Your task to perform on an android device: Add "bose quietcomfort 35" to the cart on target Image 0: 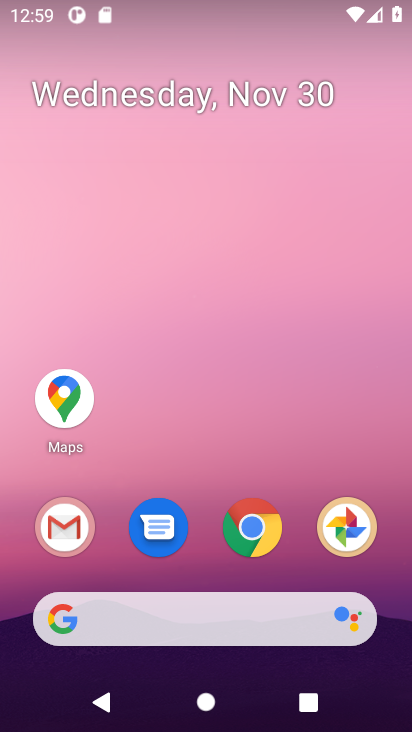
Step 0: click (251, 542)
Your task to perform on an android device: Add "bose quietcomfort 35" to the cart on target Image 1: 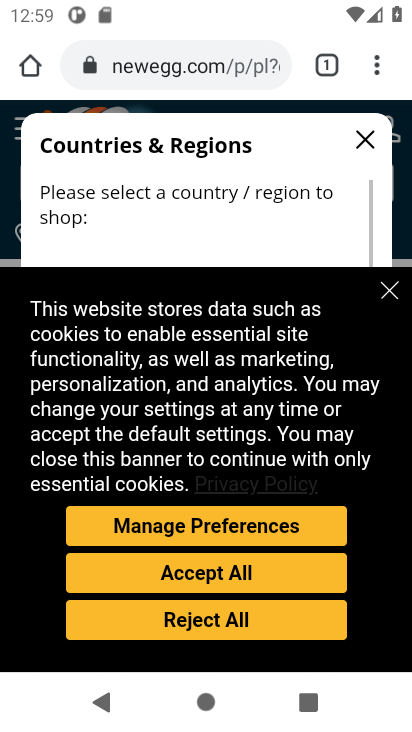
Step 1: click (383, 294)
Your task to perform on an android device: Add "bose quietcomfort 35" to the cart on target Image 2: 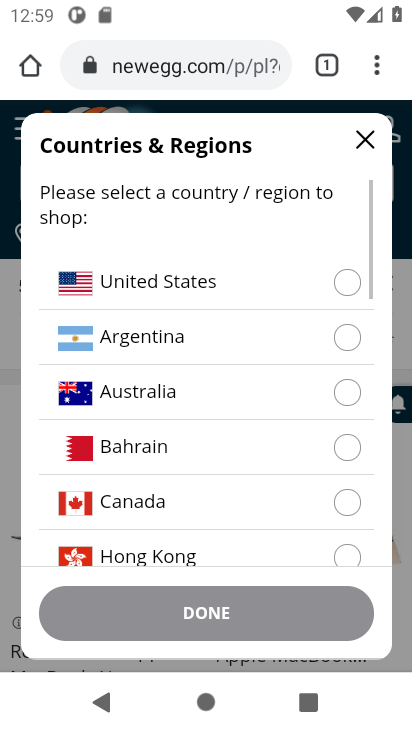
Step 2: click (366, 142)
Your task to perform on an android device: Add "bose quietcomfort 35" to the cart on target Image 3: 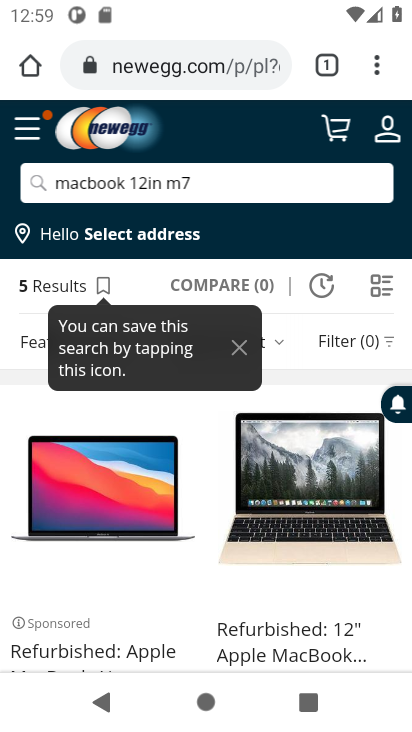
Step 3: click (209, 177)
Your task to perform on an android device: Add "bose quietcomfort 35" to the cart on target Image 4: 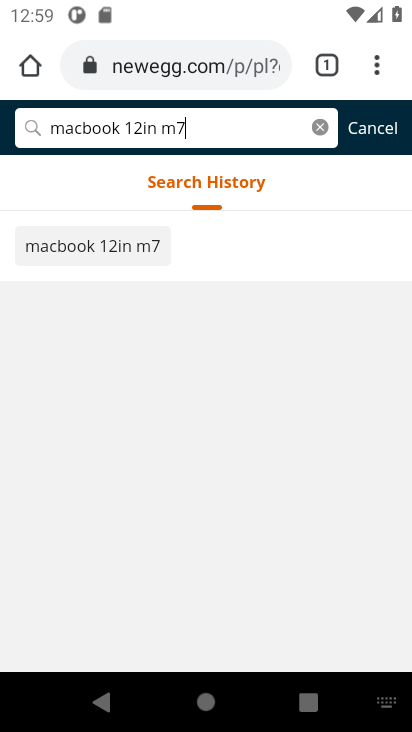
Step 4: click (198, 70)
Your task to perform on an android device: Add "bose quietcomfort 35" to the cart on target Image 5: 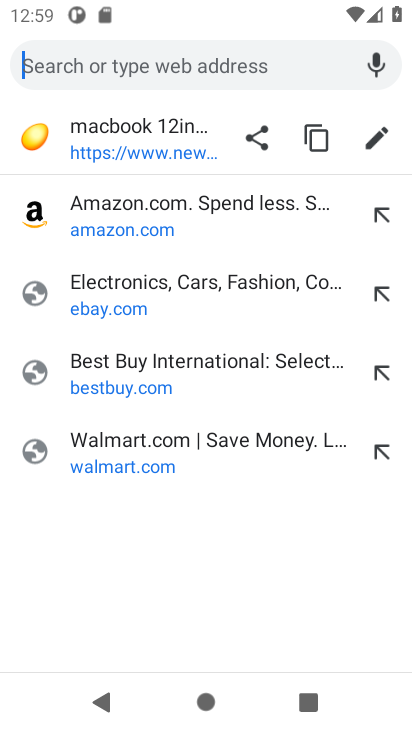
Step 5: type "target'"
Your task to perform on an android device: Add "bose quietcomfort 35" to the cart on target Image 6: 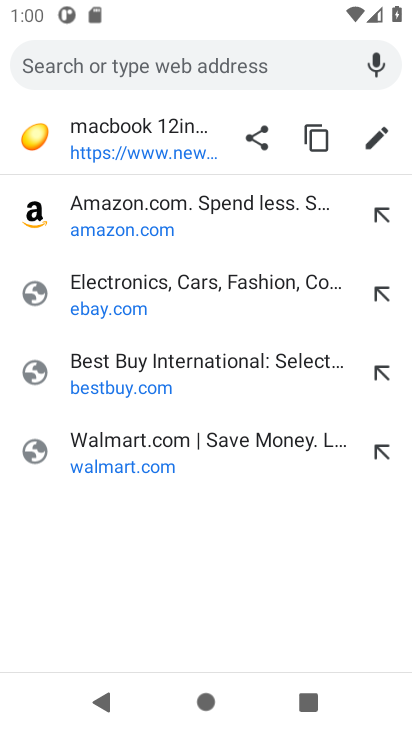
Step 6: type "target"
Your task to perform on an android device: Add "bose quietcomfort 35" to the cart on target Image 7: 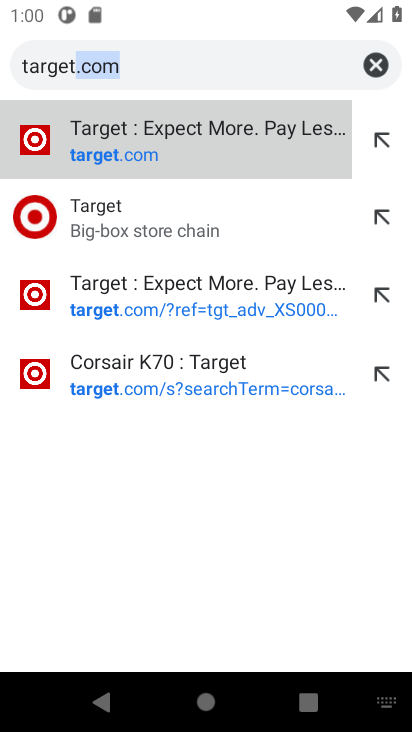
Step 7: click (135, 208)
Your task to perform on an android device: Add "bose quietcomfort 35" to the cart on target Image 8: 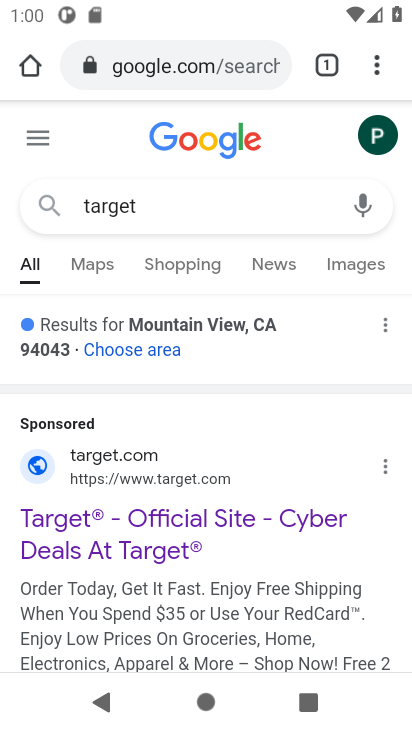
Step 8: click (158, 526)
Your task to perform on an android device: Add "bose quietcomfort 35" to the cart on target Image 9: 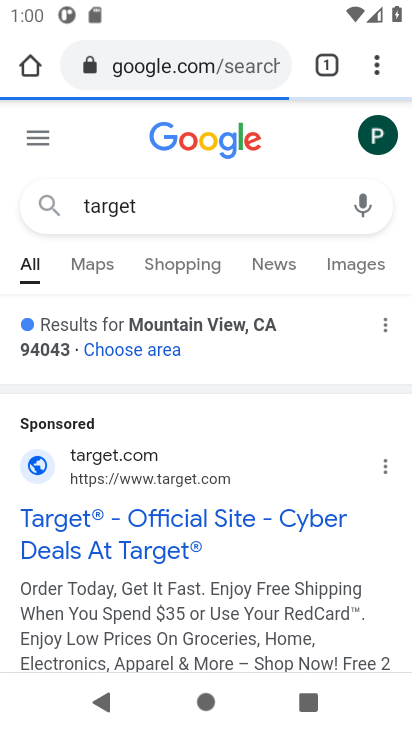
Step 9: click (98, 544)
Your task to perform on an android device: Add "bose quietcomfort 35" to the cart on target Image 10: 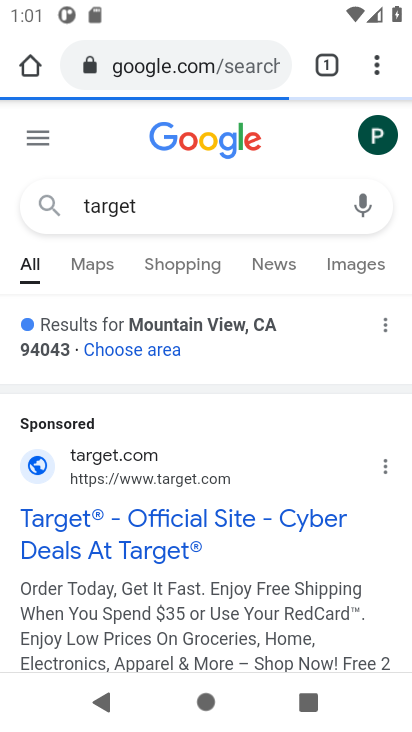
Step 10: click (77, 551)
Your task to perform on an android device: Add "bose quietcomfort 35" to the cart on target Image 11: 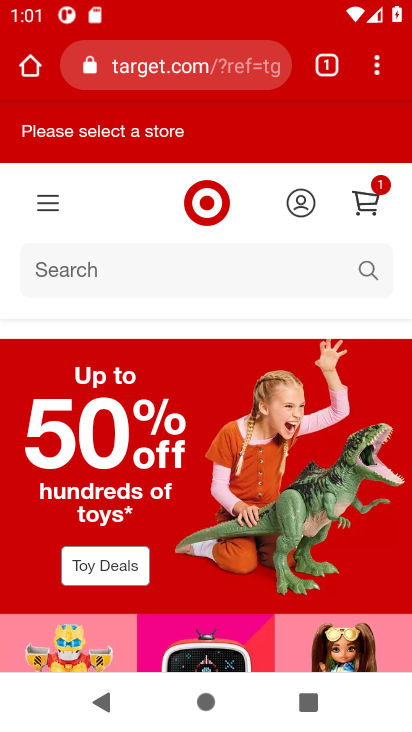
Step 11: task complete